Your task to perform on an android device: turn on wifi Image 0: 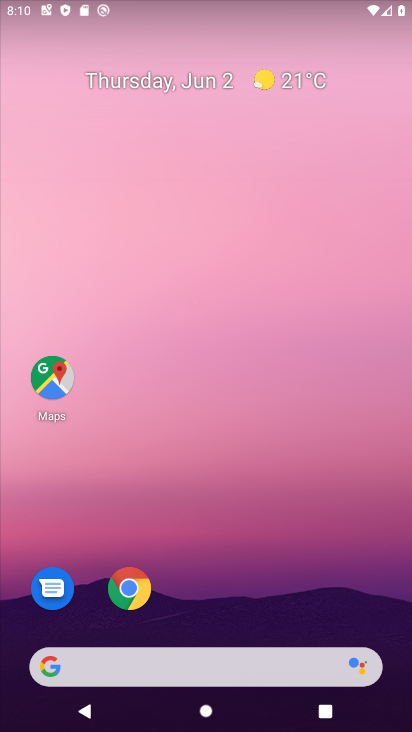
Step 0: drag from (232, 682) to (281, 218)
Your task to perform on an android device: turn on wifi Image 1: 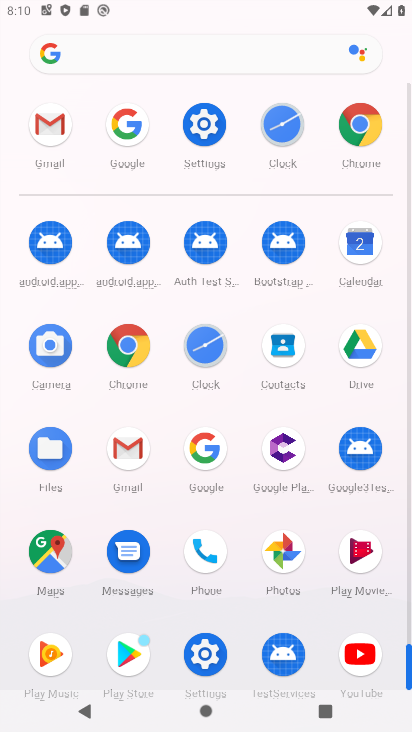
Step 1: click (209, 137)
Your task to perform on an android device: turn on wifi Image 2: 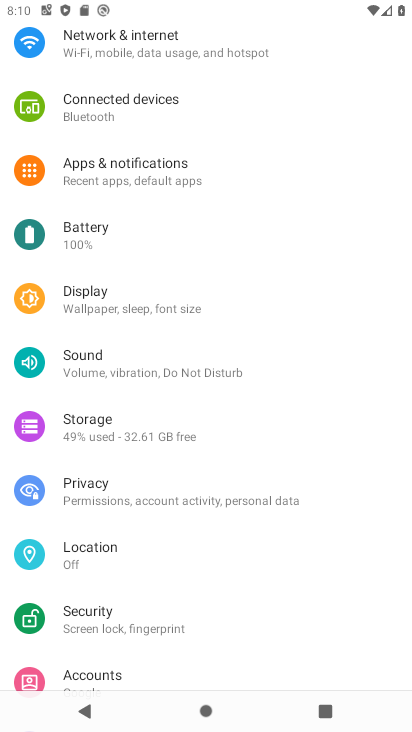
Step 2: drag from (213, 179) to (226, 523)
Your task to perform on an android device: turn on wifi Image 3: 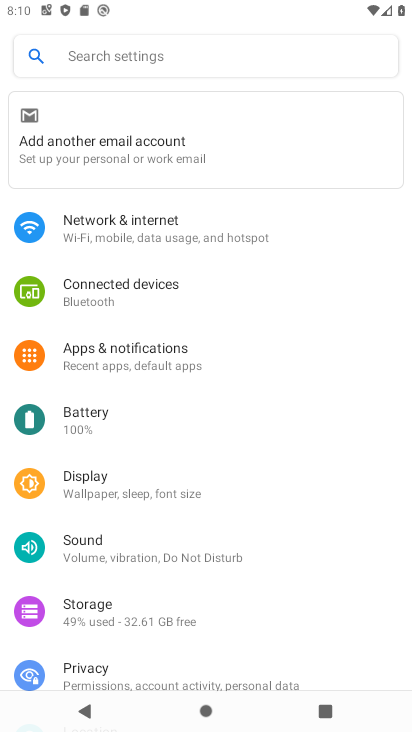
Step 3: drag from (247, 360) to (220, 650)
Your task to perform on an android device: turn on wifi Image 4: 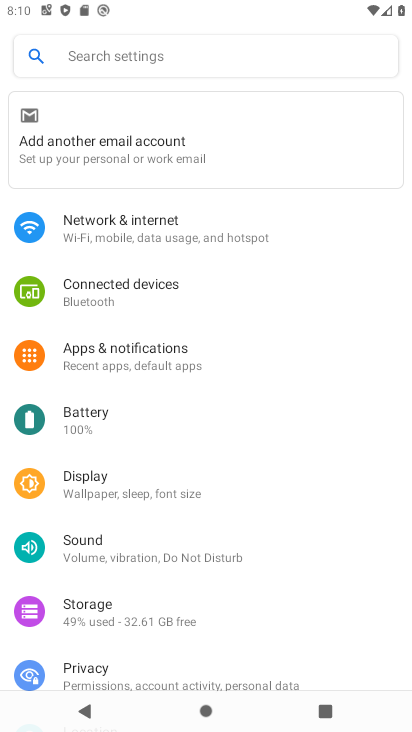
Step 4: click (231, 229)
Your task to perform on an android device: turn on wifi Image 5: 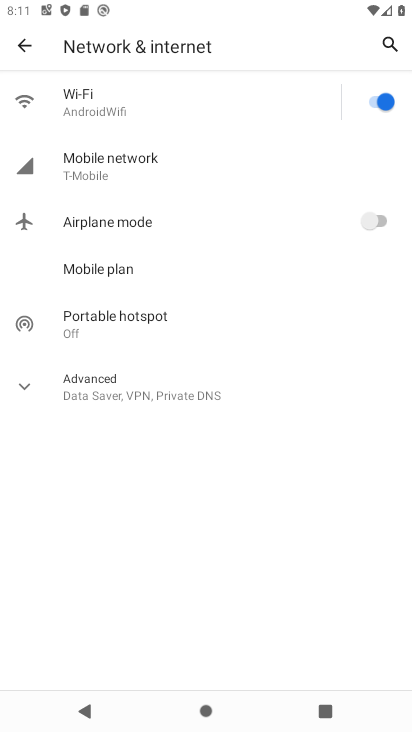
Step 5: task complete